Your task to perform on an android device: Open a new window in the chrome app Image 0: 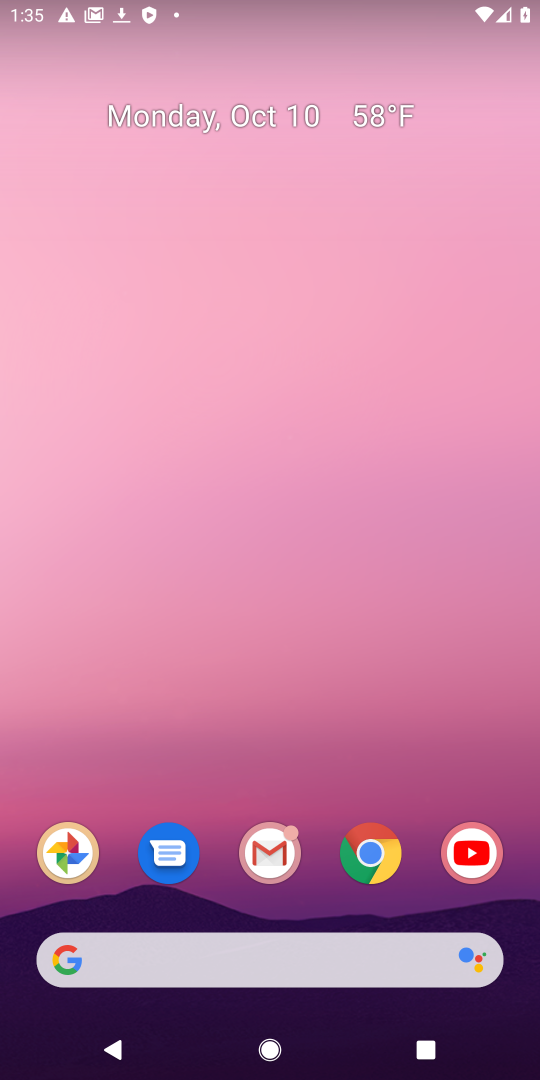
Step 0: click (369, 856)
Your task to perform on an android device: Open a new window in the chrome app Image 1: 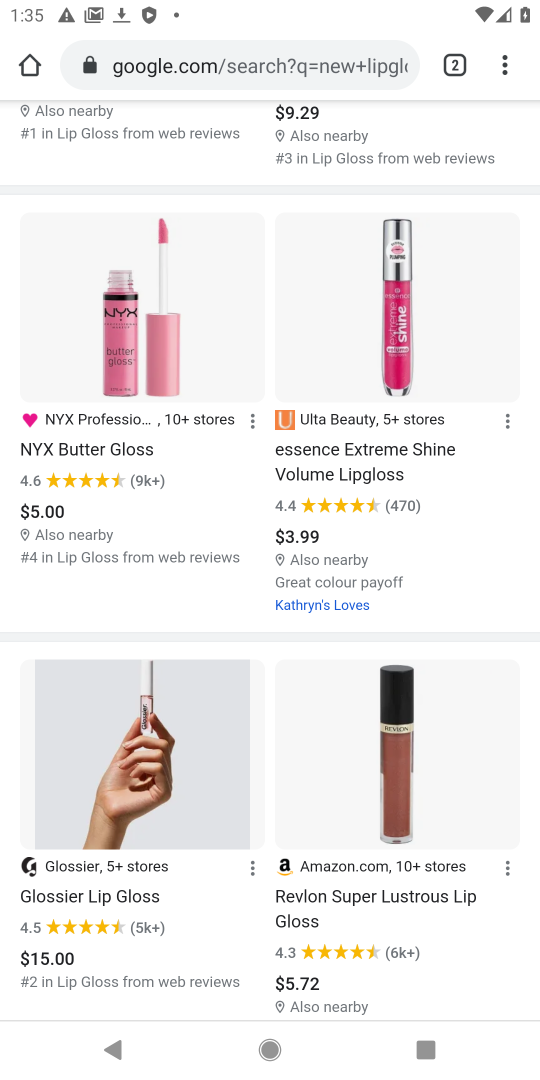
Step 1: click (454, 56)
Your task to perform on an android device: Open a new window in the chrome app Image 2: 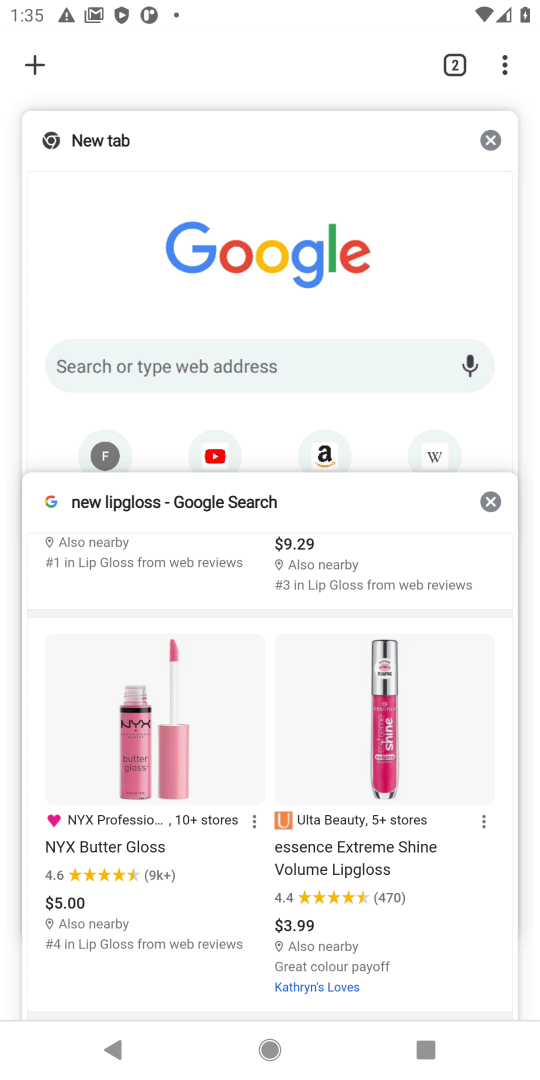
Step 2: click (492, 144)
Your task to perform on an android device: Open a new window in the chrome app Image 3: 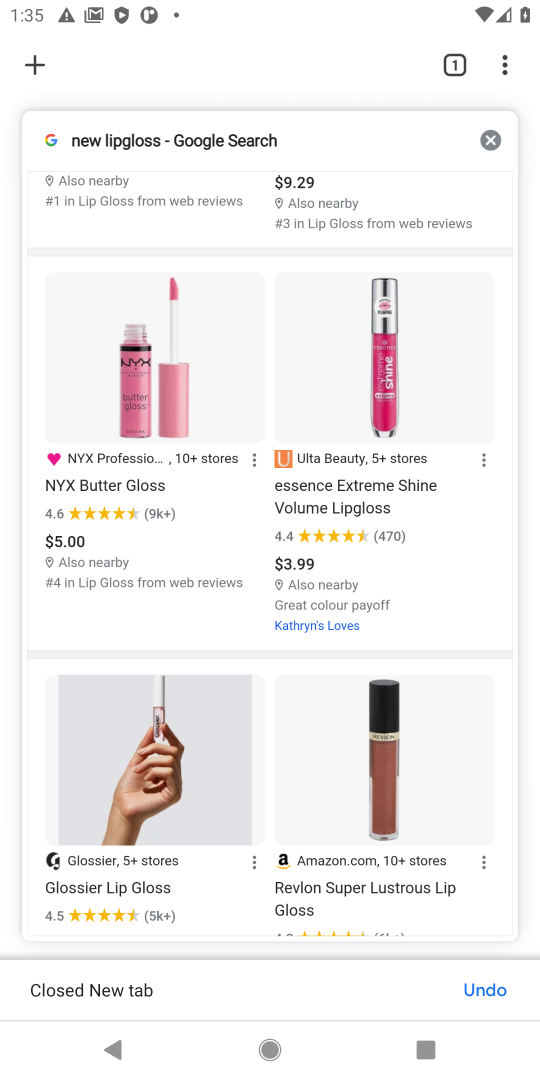
Step 3: click (492, 144)
Your task to perform on an android device: Open a new window in the chrome app Image 4: 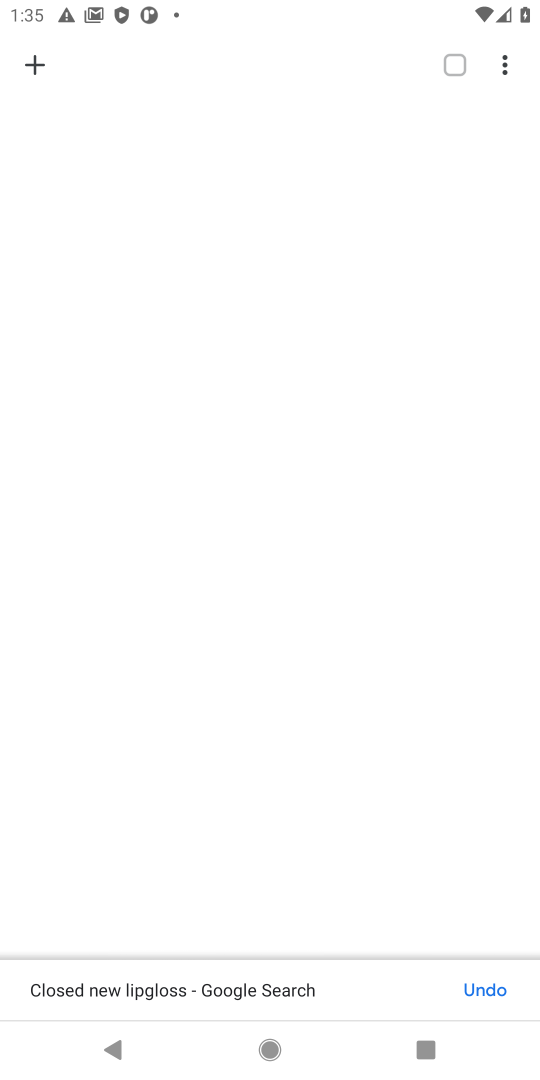
Step 4: click (506, 65)
Your task to perform on an android device: Open a new window in the chrome app Image 5: 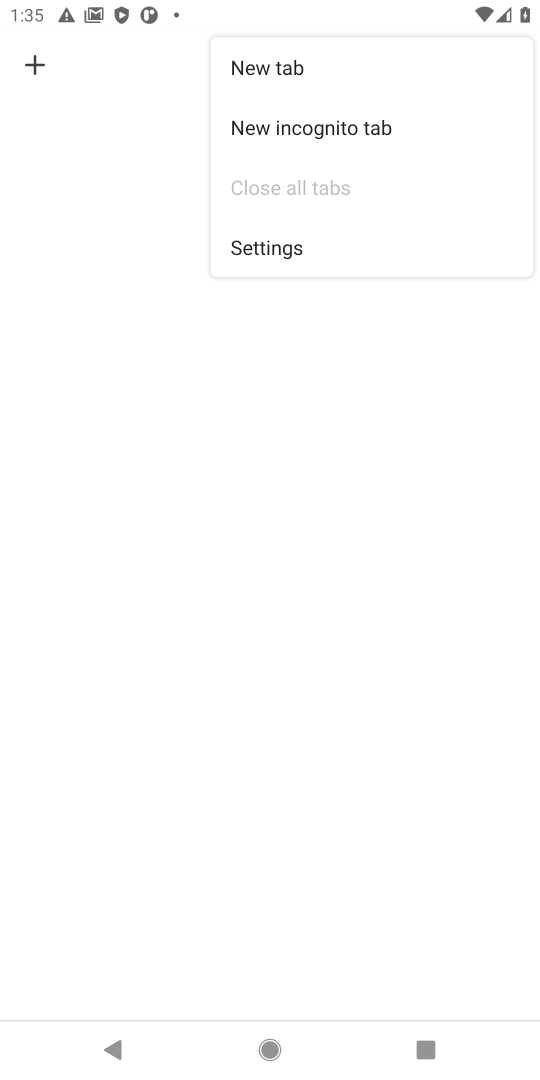
Step 5: click (272, 69)
Your task to perform on an android device: Open a new window in the chrome app Image 6: 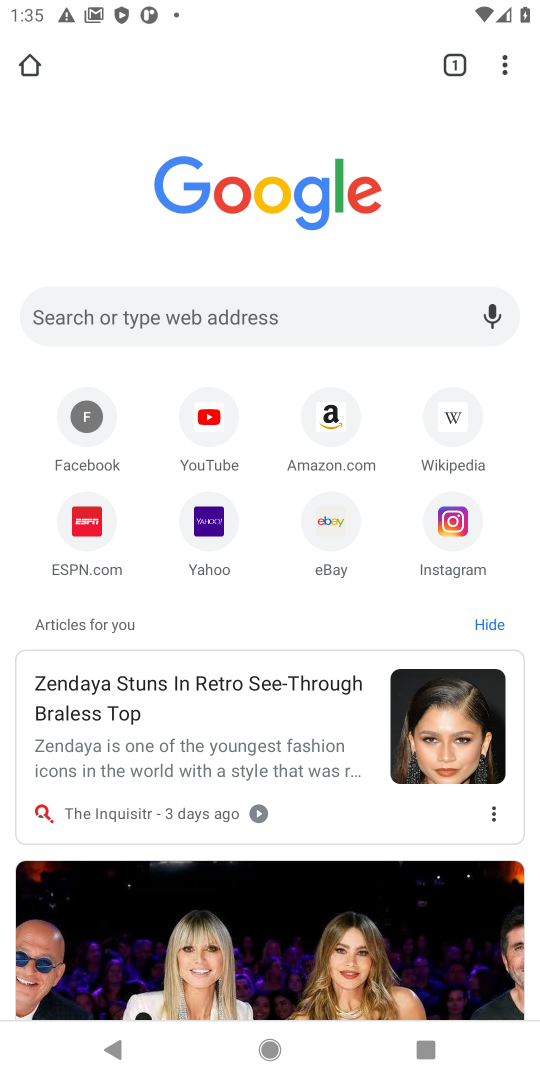
Step 6: task complete